Your task to perform on an android device: Go to calendar. Show me events next week Image 0: 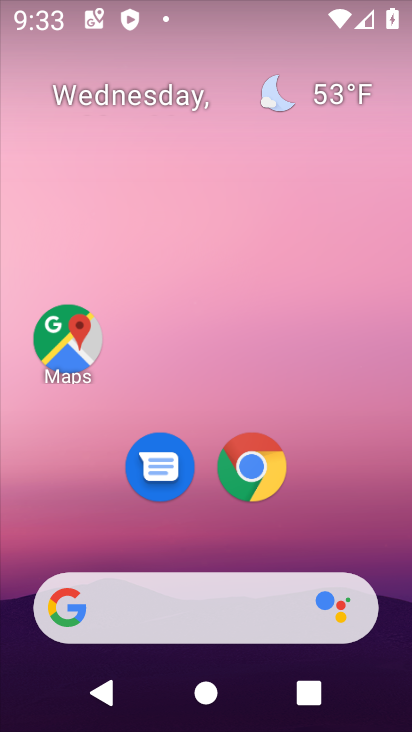
Step 0: drag from (359, 526) to (360, 24)
Your task to perform on an android device: Go to calendar. Show me events next week Image 1: 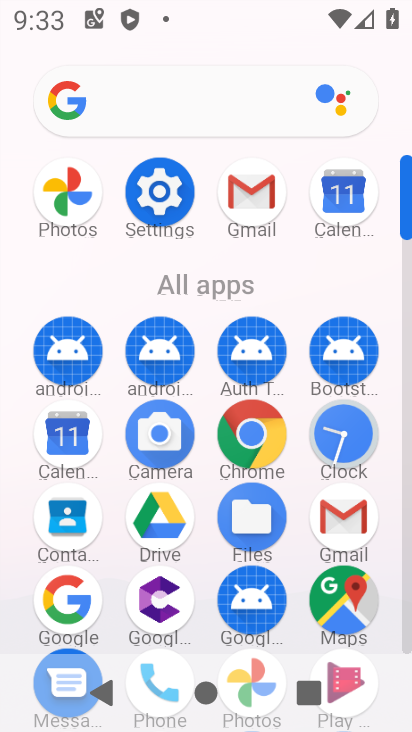
Step 1: click (70, 416)
Your task to perform on an android device: Go to calendar. Show me events next week Image 2: 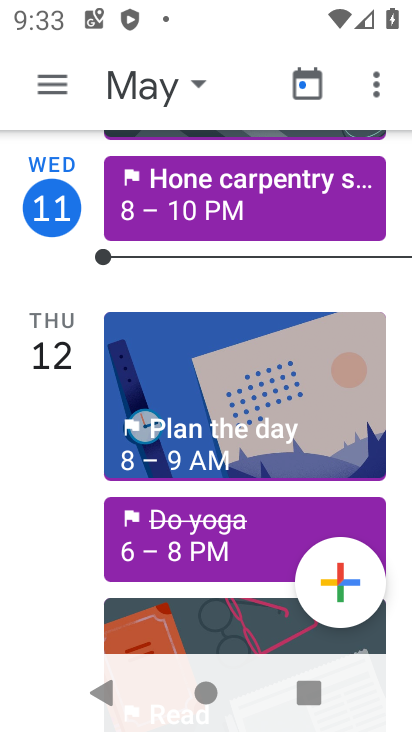
Step 2: task complete